Your task to perform on an android device: clear all cookies in the chrome app Image 0: 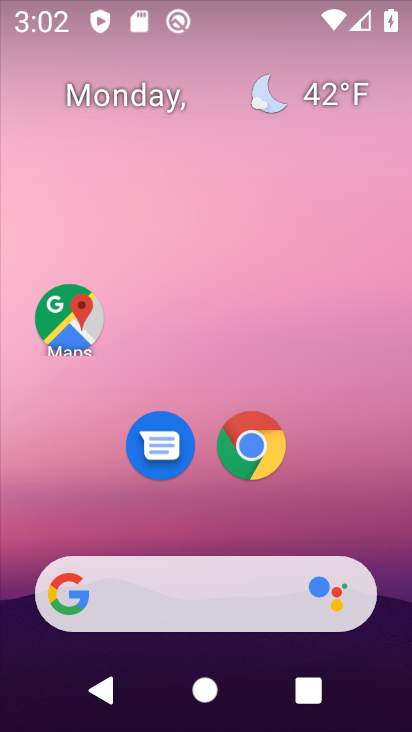
Step 0: click (175, 25)
Your task to perform on an android device: clear all cookies in the chrome app Image 1: 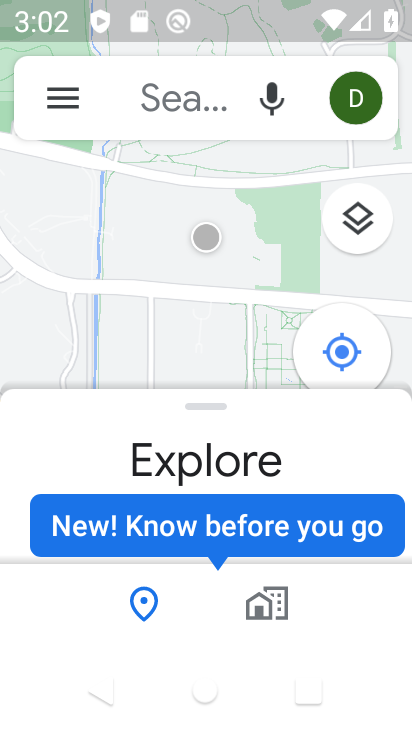
Step 1: press home button
Your task to perform on an android device: clear all cookies in the chrome app Image 2: 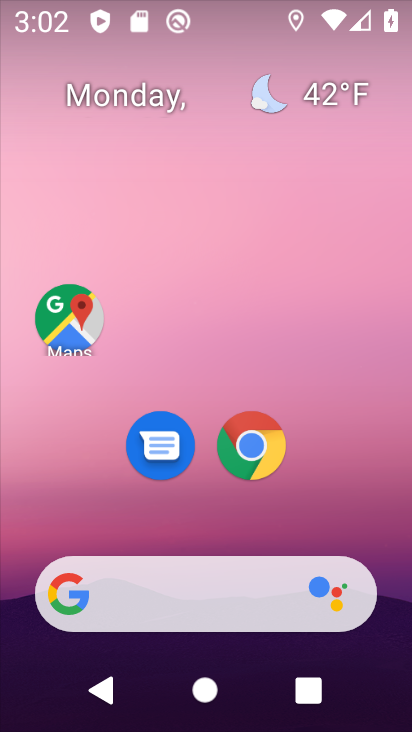
Step 2: drag from (5, 504) to (149, 63)
Your task to perform on an android device: clear all cookies in the chrome app Image 3: 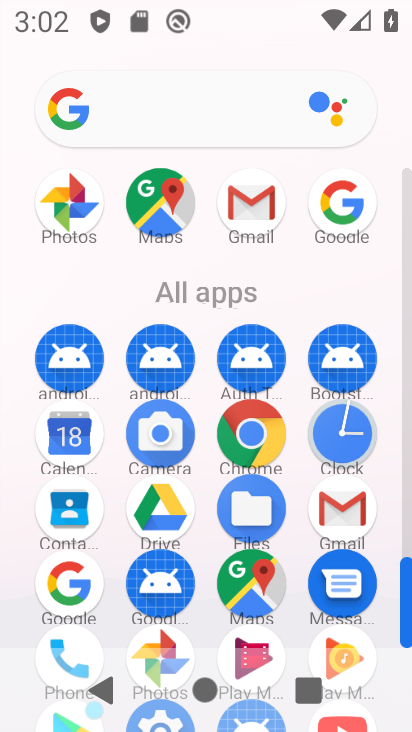
Step 3: click (256, 422)
Your task to perform on an android device: clear all cookies in the chrome app Image 4: 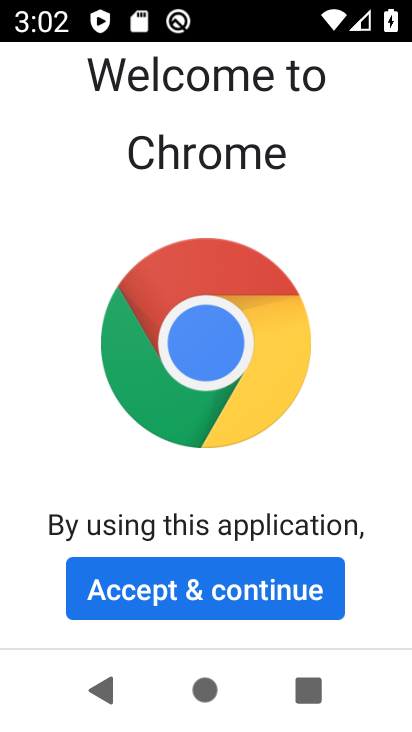
Step 4: click (179, 603)
Your task to perform on an android device: clear all cookies in the chrome app Image 5: 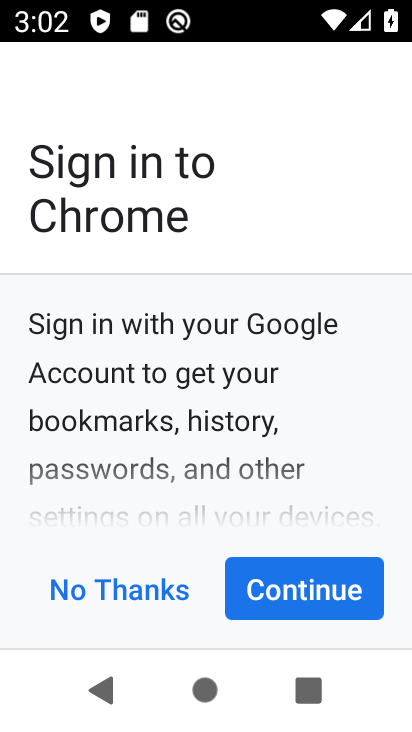
Step 5: click (262, 585)
Your task to perform on an android device: clear all cookies in the chrome app Image 6: 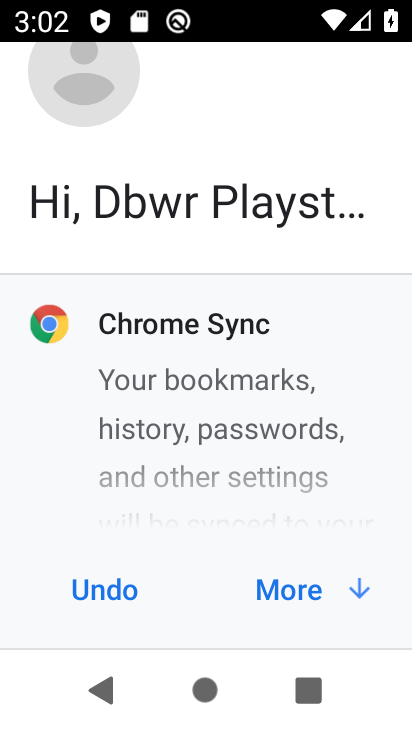
Step 6: click (262, 585)
Your task to perform on an android device: clear all cookies in the chrome app Image 7: 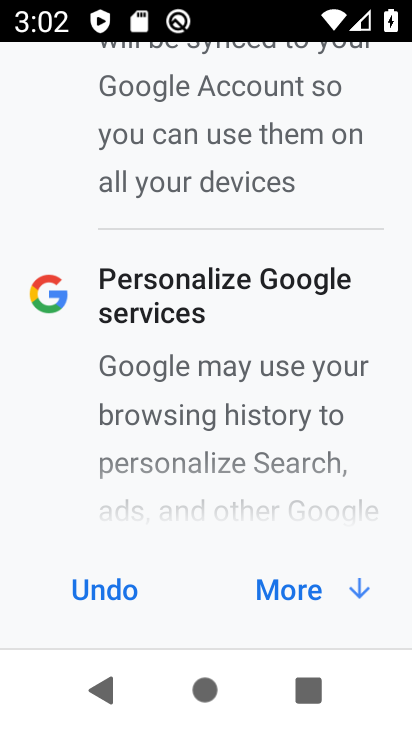
Step 7: click (262, 584)
Your task to perform on an android device: clear all cookies in the chrome app Image 8: 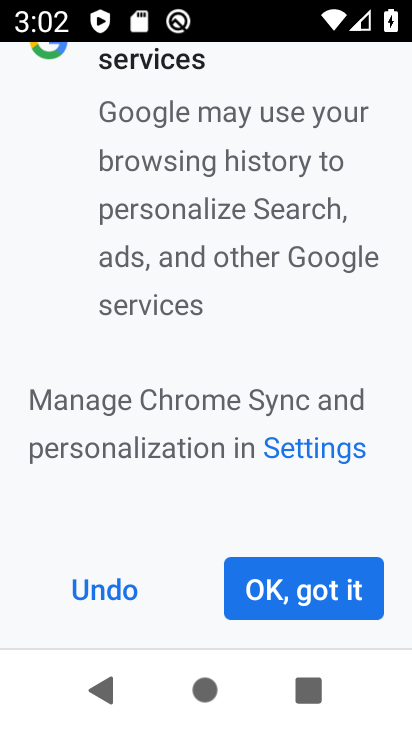
Step 8: click (262, 584)
Your task to perform on an android device: clear all cookies in the chrome app Image 9: 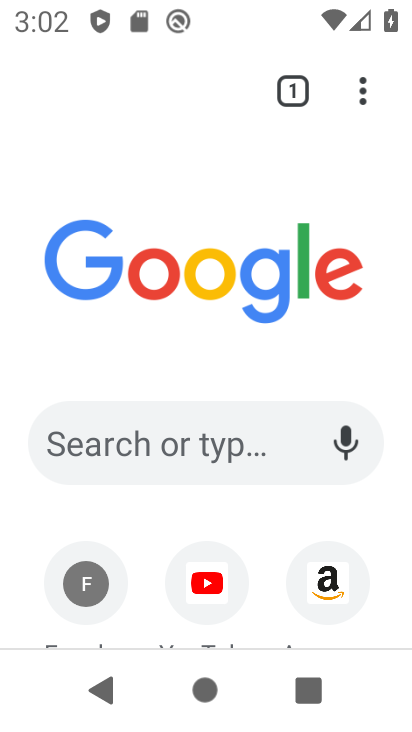
Step 9: click (365, 80)
Your task to perform on an android device: clear all cookies in the chrome app Image 10: 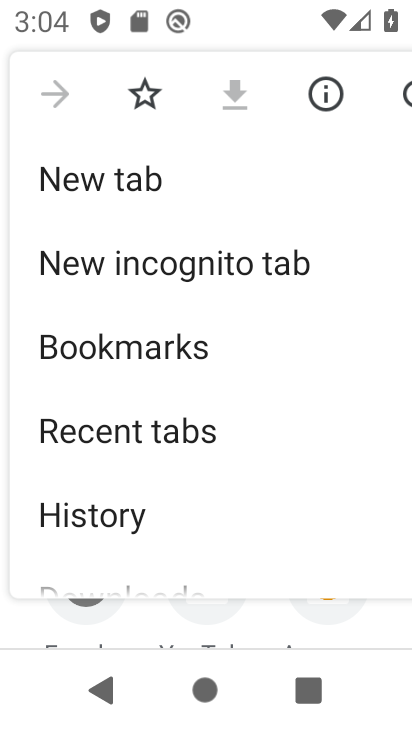
Step 10: click (179, 507)
Your task to perform on an android device: clear all cookies in the chrome app Image 11: 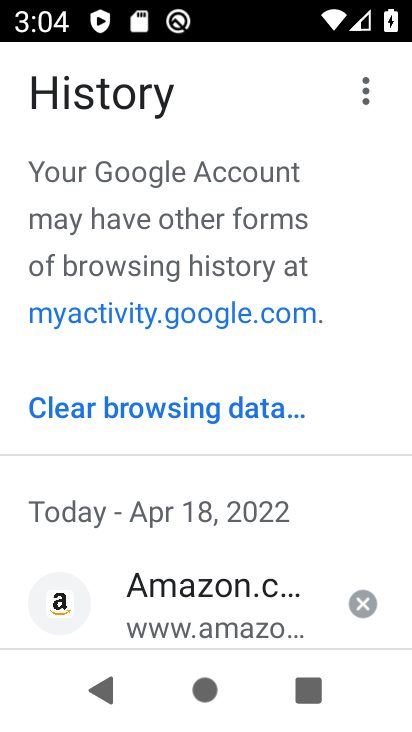
Step 11: click (152, 411)
Your task to perform on an android device: clear all cookies in the chrome app Image 12: 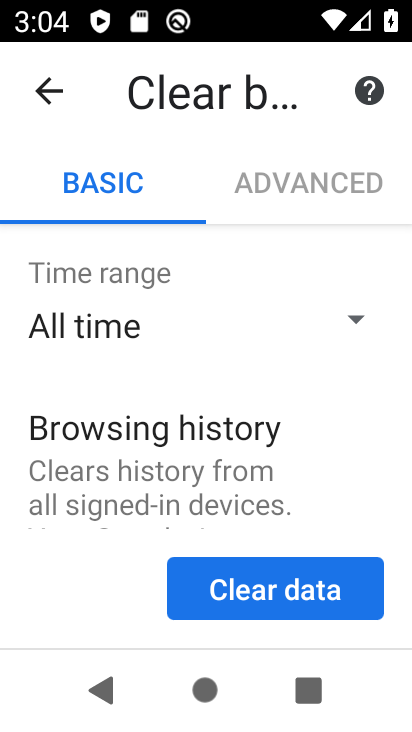
Step 12: click (264, 586)
Your task to perform on an android device: clear all cookies in the chrome app Image 13: 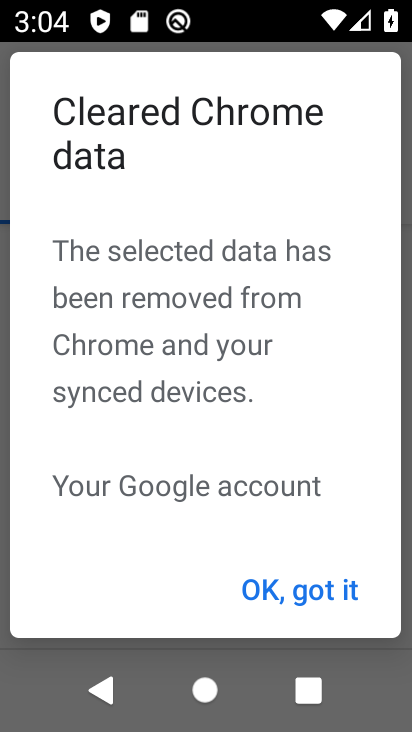
Step 13: click (264, 586)
Your task to perform on an android device: clear all cookies in the chrome app Image 14: 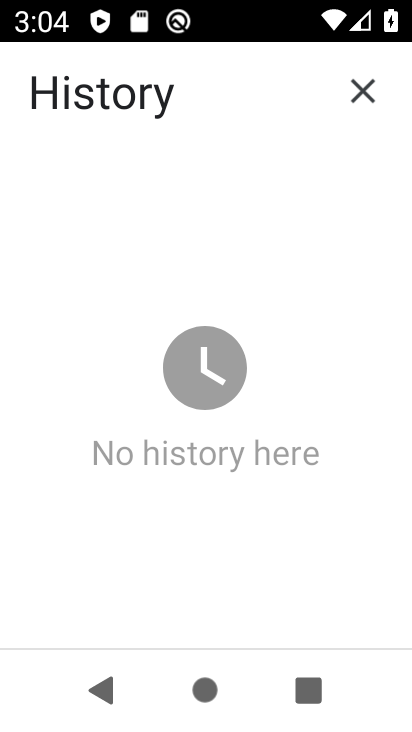
Step 14: task complete